Your task to perform on an android device: turn pop-ups on in chrome Image 0: 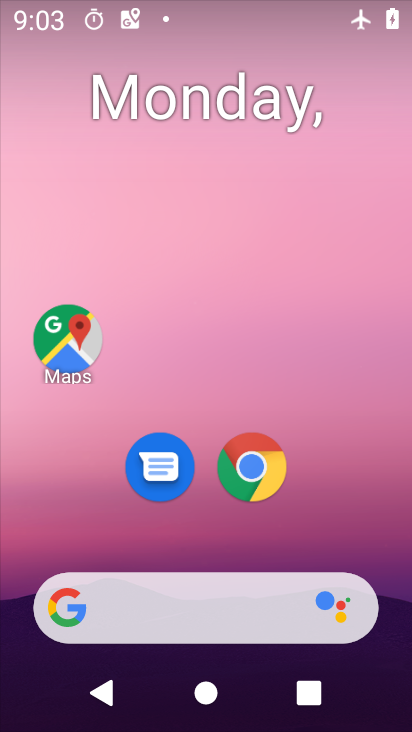
Step 0: click (265, 467)
Your task to perform on an android device: turn pop-ups on in chrome Image 1: 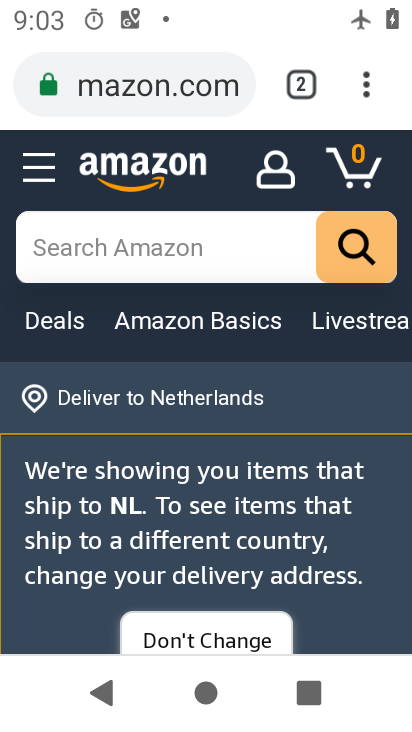
Step 1: click (370, 76)
Your task to perform on an android device: turn pop-ups on in chrome Image 2: 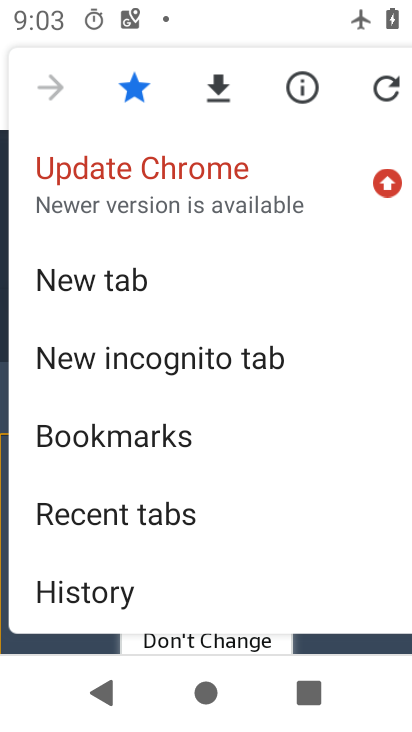
Step 2: drag from (207, 489) to (269, 90)
Your task to perform on an android device: turn pop-ups on in chrome Image 3: 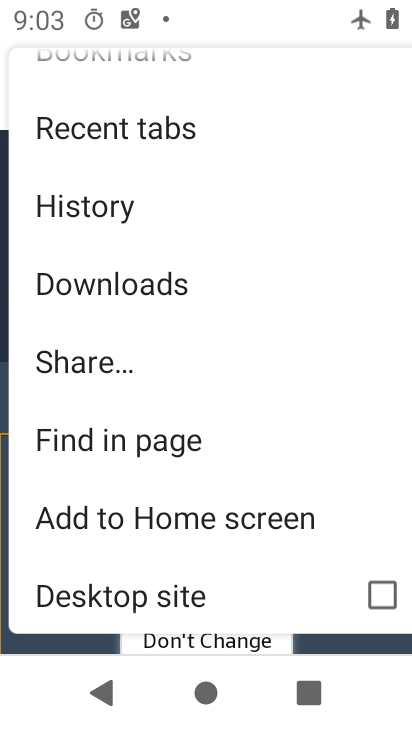
Step 3: drag from (138, 492) to (208, 124)
Your task to perform on an android device: turn pop-ups on in chrome Image 4: 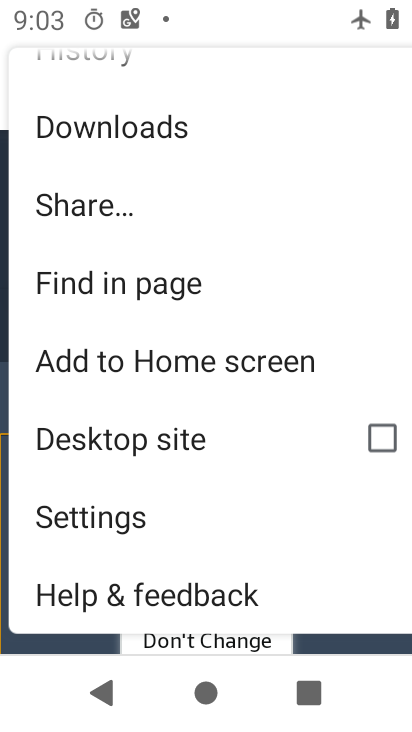
Step 4: click (116, 521)
Your task to perform on an android device: turn pop-ups on in chrome Image 5: 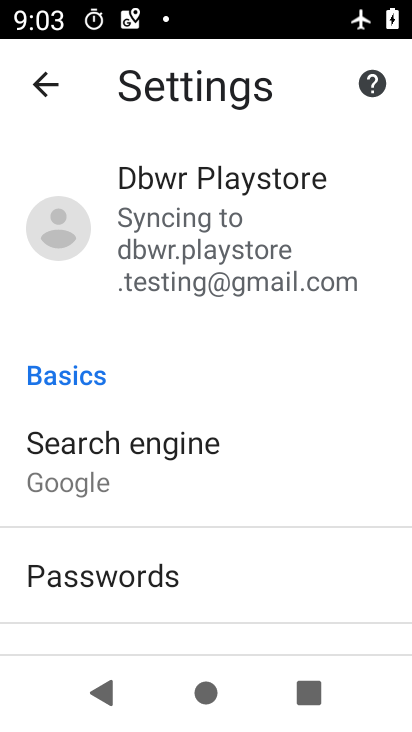
Step 5: drag from (159, 546) to (226, 24)
Your task to perform on an android device: turn pop-ups on in chrome Image 6: 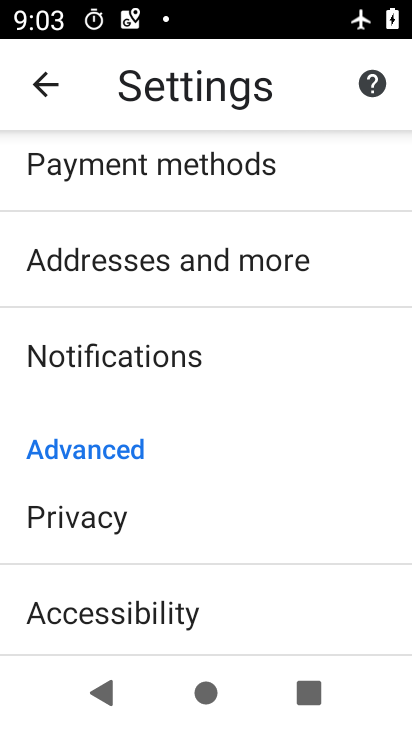
Step 6: drag from (114, 612) to (226, 12)
Your task to perform on an android device: turn pop-ups on in chrome Image 7: 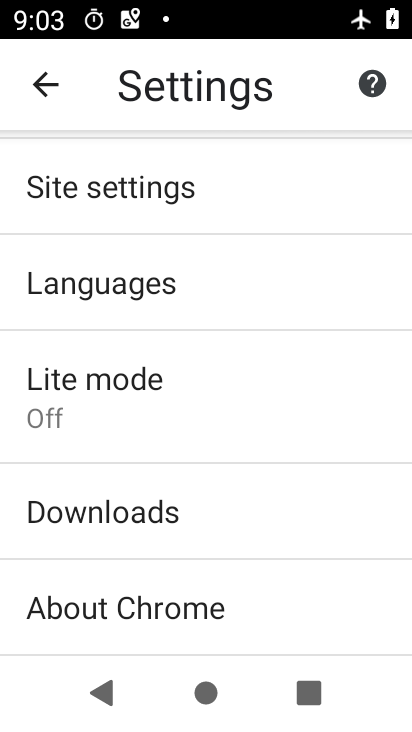
Step 7: click (190, 200)
Your task to perform on an android device: turn pop-ups on in chrome Image 8: 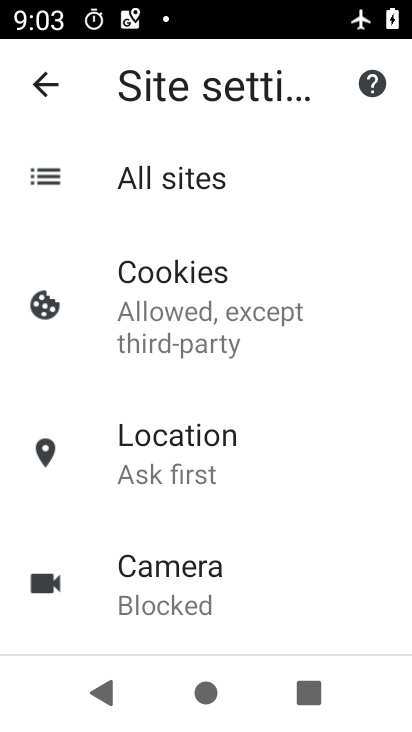
Step 8: drag from (209, 577) to (269, 208)
Your task to perform on an android device: turn pop-ups on in chrome Image 9: 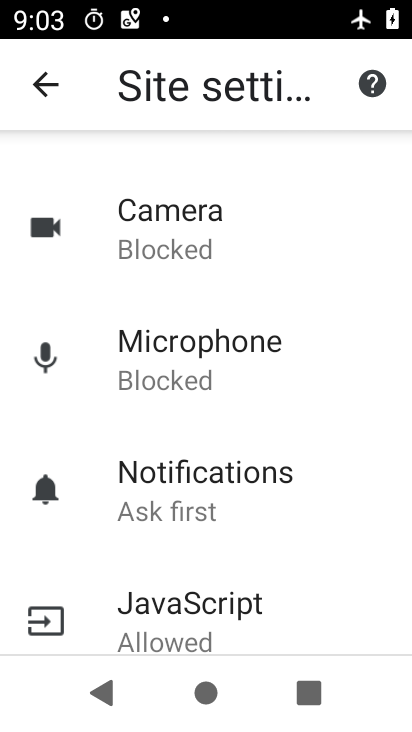
Step 9: drag from (214, 530) to (254, 156)
Your task to perform on an android device: turn pop-ups on in chrome Image 10: 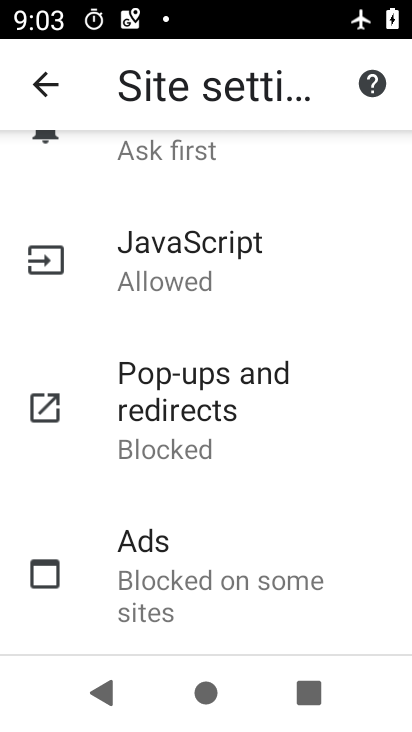
Step 10: click (206, 407)
Your task to perform on an android device: turn pop-ups on in chrome Image 11: 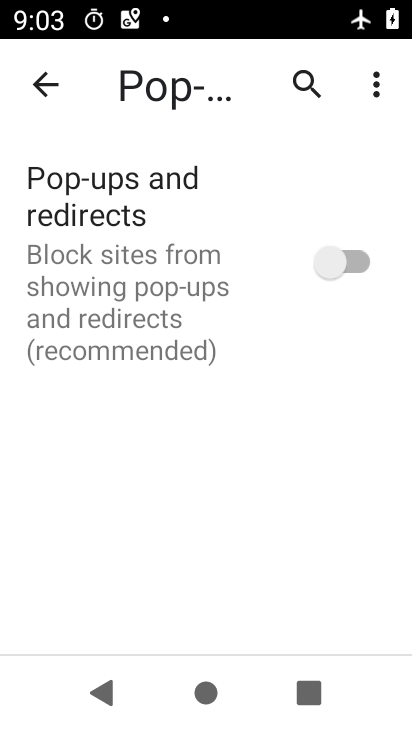
Step 11: click (337, 260)
Your task to perform on an android device: turn pop-ups on in chrome Image 12: 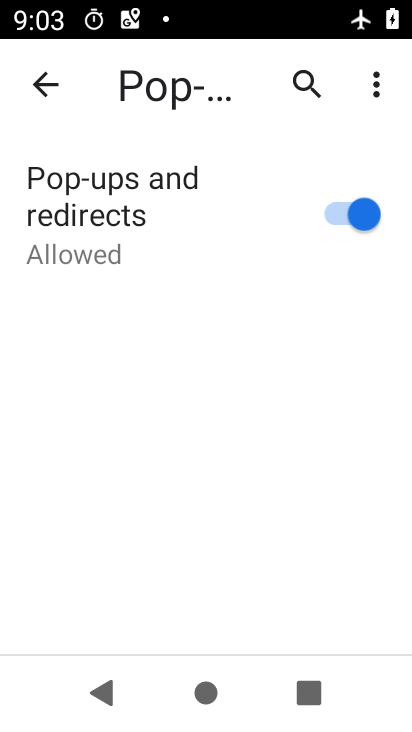
Step 12: task complete